Your task to perform on an android device: Open Google Maps Image 0: 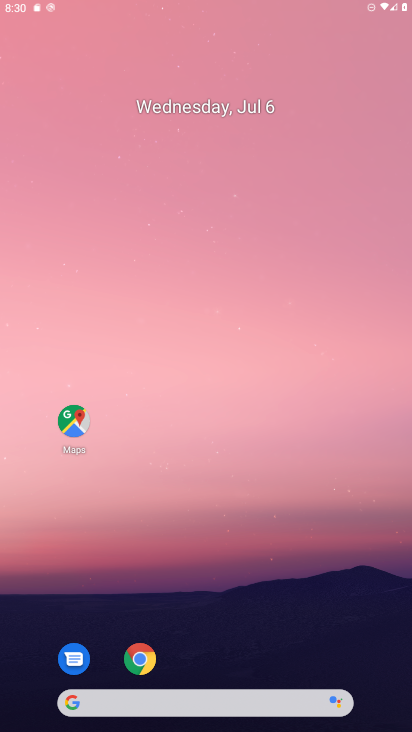
Step 0: press home button
Your task to perform on an android device: Open Google Maps Image 1: 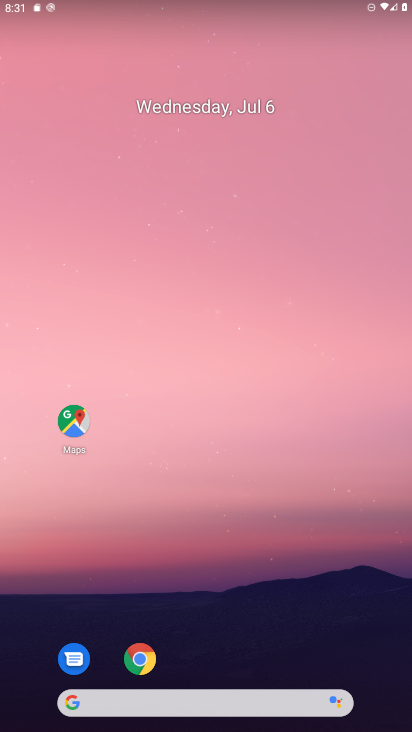
Step 1: drag from (259, 654) to (352, 70)
Your task to perform on an android device: Open Google Maps Image 2: 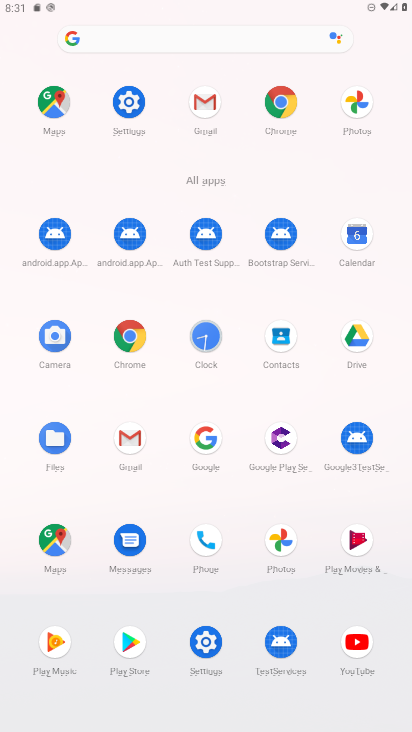
Step 2: drag from (225, 396) to (250, 182)
Your task to perform on an android device: Open Google Maps Image 3: 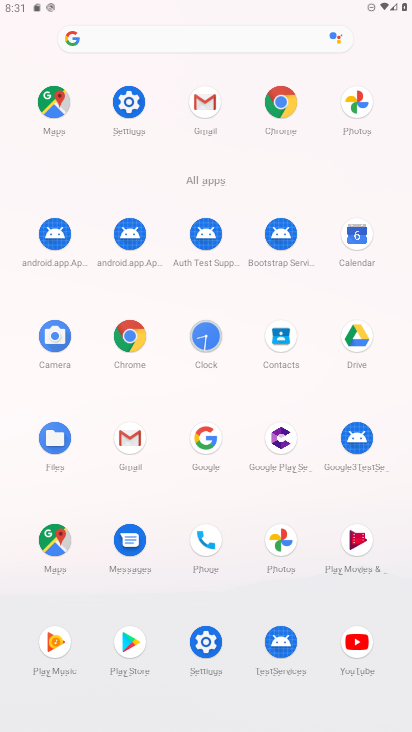
Step 3: drag from (238, 358) to (243, 529)
Your task to perform on an android device: Open Google Maps Image 4: 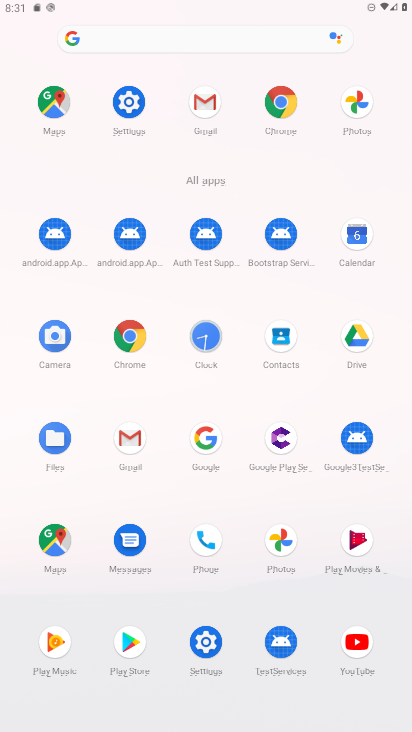
Step 4: drag from (237, 509) to (246, 363)
Your task to perform on an android device: Open Google Maps Image 5: 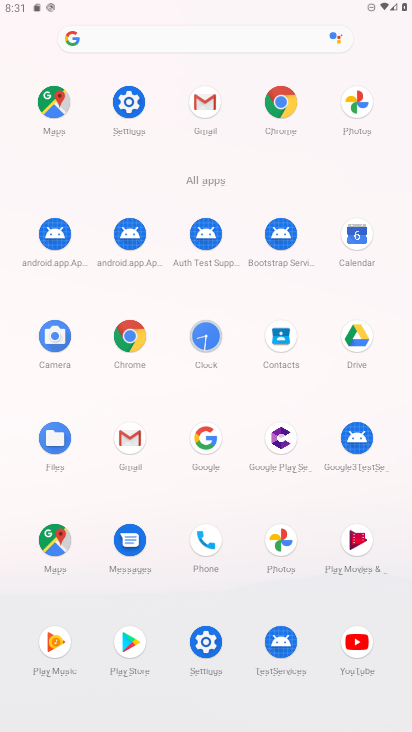
Step 5: click (49, 555)
Your task to perform on an android device: Open Google Maps Image 6: 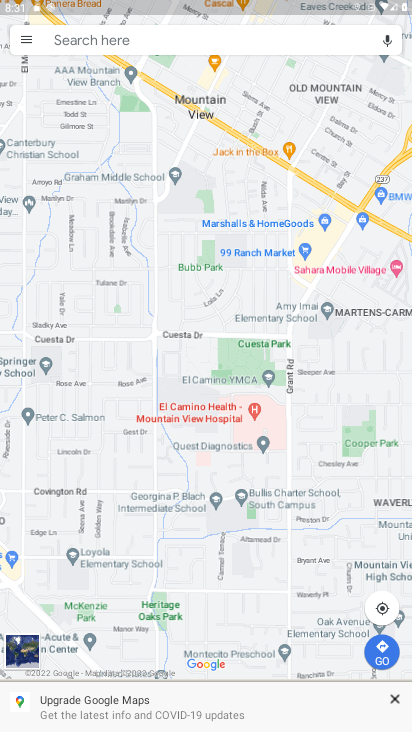
Step 6: task complete